Your task to perform on an android device: turn on improve location accuracy Image 0: 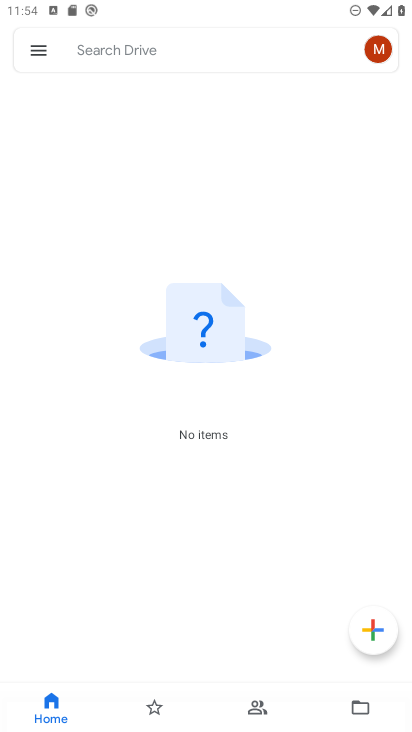
Step 0: press home button
Your task to perform on an android device: turn on improve location accuracy Image 1: 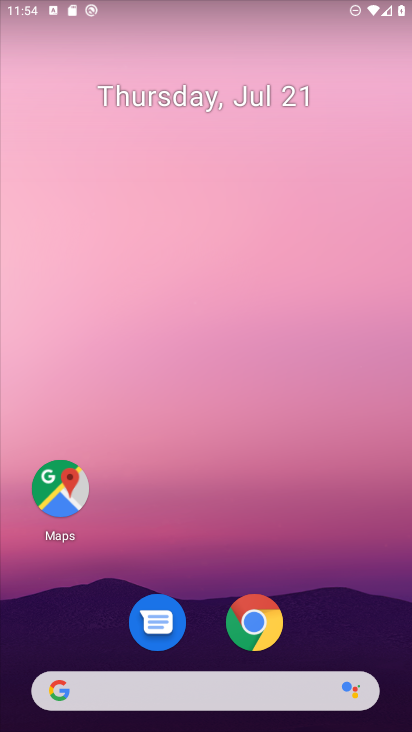
Step 1: drag from (207, 550) to (300, 11)
Your task to perform on an android device: turn on improve location accuracy Image 2: 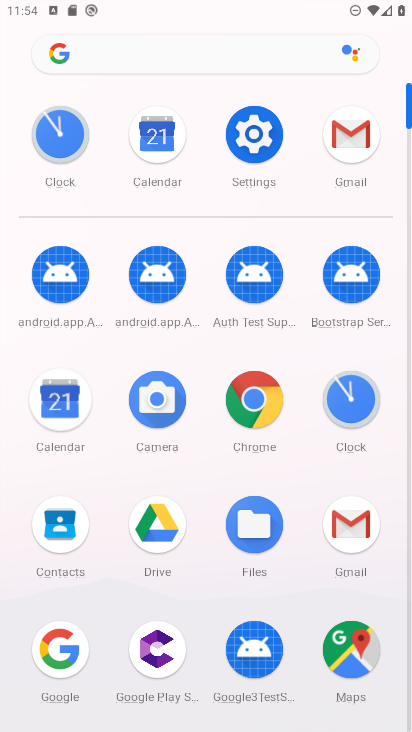
Step 2: click (262, 133)
Your task to perform on an android device: turn on improve location accuracy Image 3: 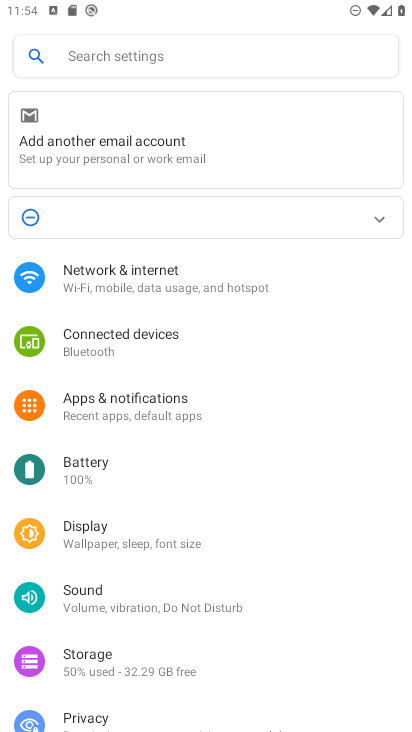
Step 3: drag from (228, 606) to (248, 37)
Your task to perform on an android device: turn on improve location accuracy Image 4: 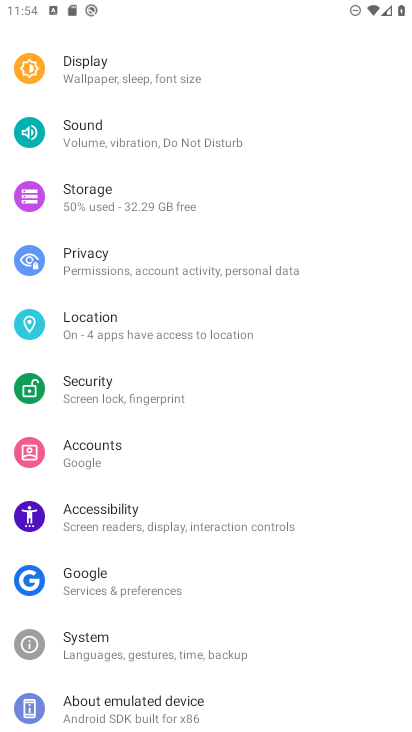
Step 4: click (151, 330)
Your task to perform on an android device: turn on improve location accuracy Image 5: 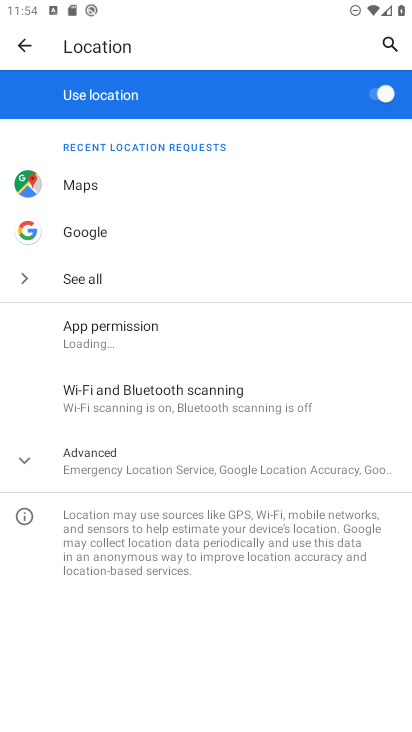
Step 5: click (188, 467)
Your task to perform on an android device: turn on improve location accuracy Image 6: 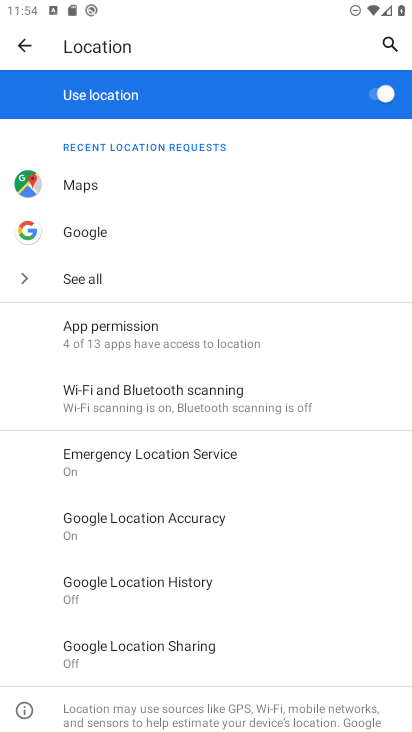
Step 6: click (191, 521)
Your task to perform on an android device: turn on improve location accuracy Image 7: 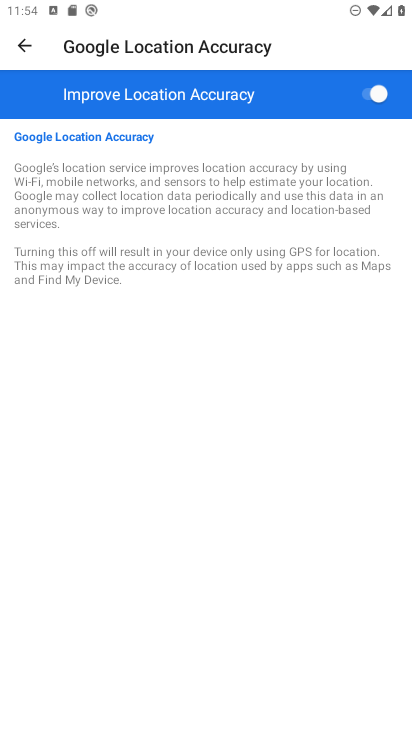
Step 7: task complete